Your task to perform on an android device: Open the calendar and show me this week's events? Image 0: 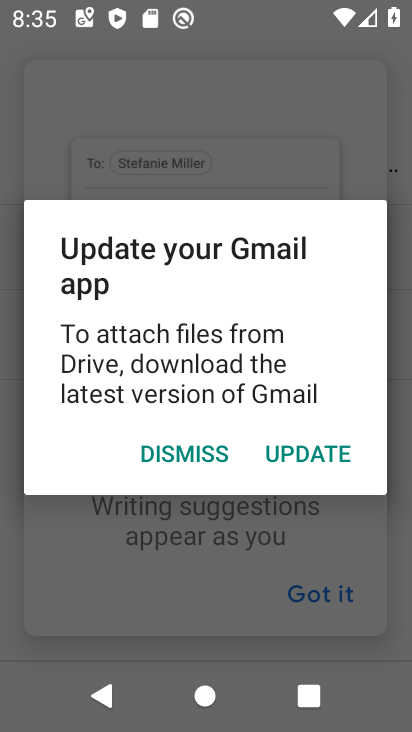
Step 0: click (169, 451)
Your task to perform on an android device: Open the calendar and show me this week's events? Image 1: 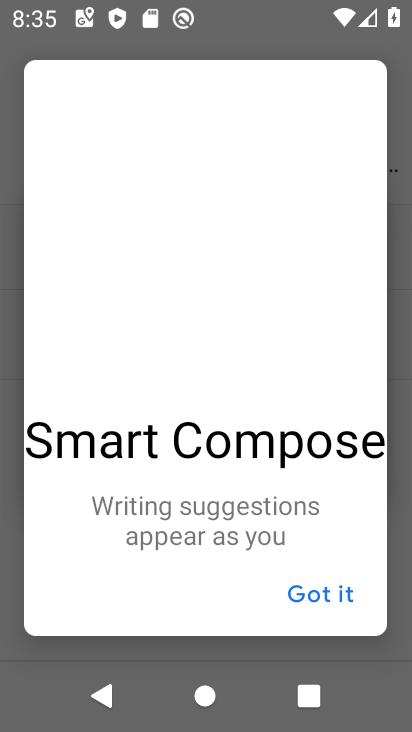
Step 1: press back button
Your task to perform on an android device: Open the calendar and show me this week's events? Image 2: 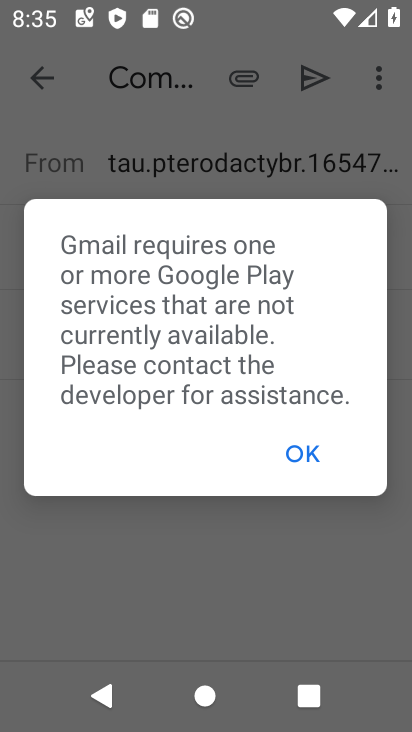
Step 2: press back button
Your task to perform on an android device: Open the calendar and show me this week's events? Image 3: 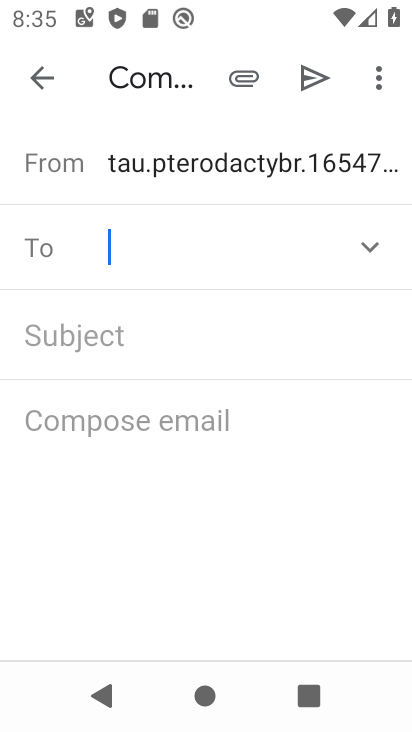
Step 3: press back button
Your task to perform on an android device: Open the calendar and show me this week's events? Image 4: 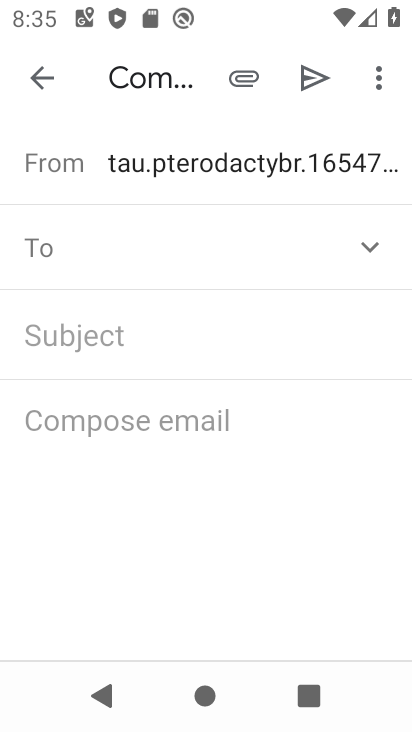
Step 4: press back button
Your task to perform on an android device: Open the calendar and show me this week's events? Image 5: 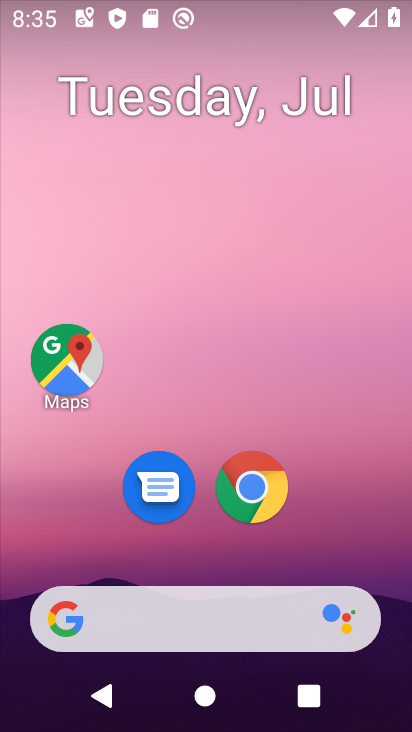
Step 5: press back button
Your task to perform on an android device: Open the calendar and show me this week's events? Image 6: 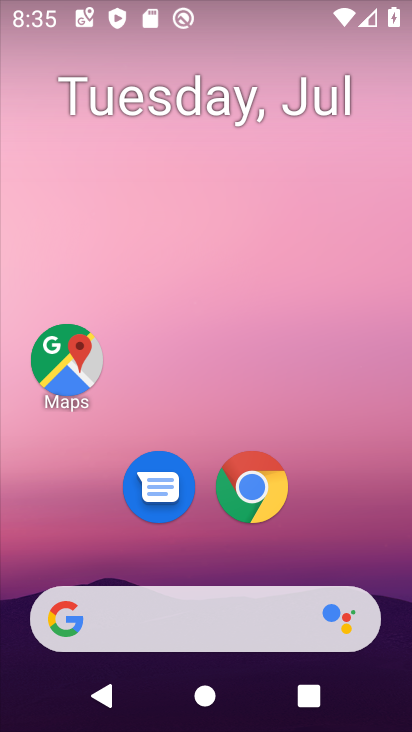
Step 6: drag from (220, 555) to (308, 34)
Your task to perform on an android device: Open the calendar and show me this week's events? Image 7: 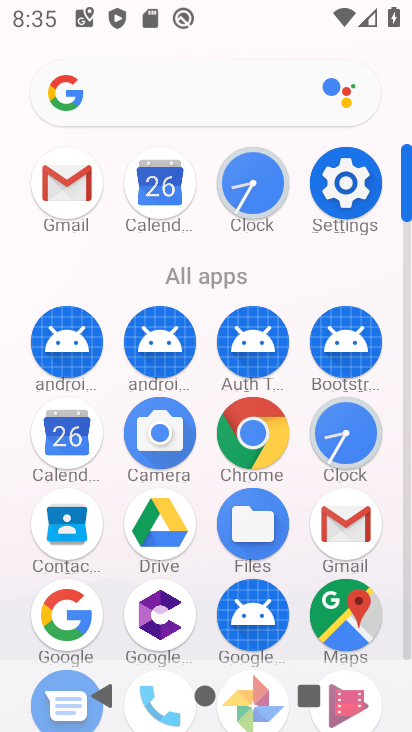
Step 7: click (76, 438)
Your task to perform on an android device: Open the calendar and show me this week's events? Image 8: 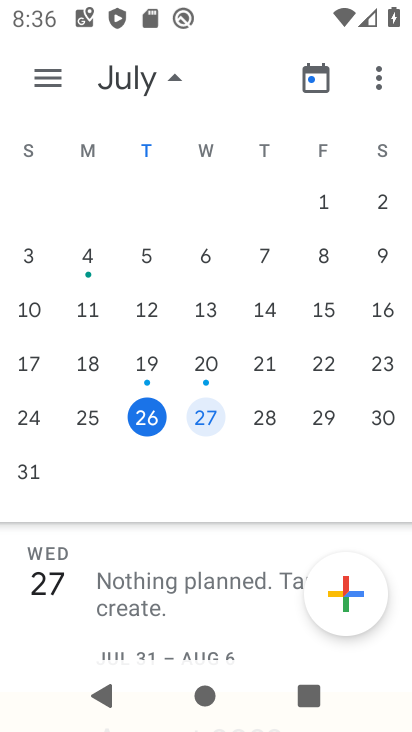
Step 8: click (260, 295)
Your task to perform on an android device: Open the calendar and show me this week's events? Image 9: 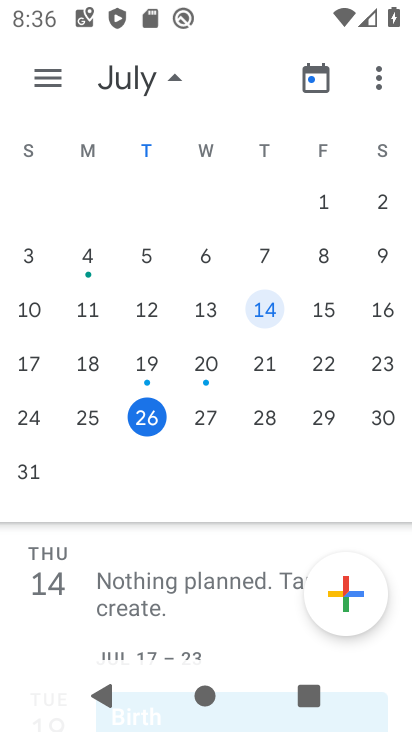
Step 9: task complete